Your task to perform on an android device: Search for the Nintendo Switch. Image 0: 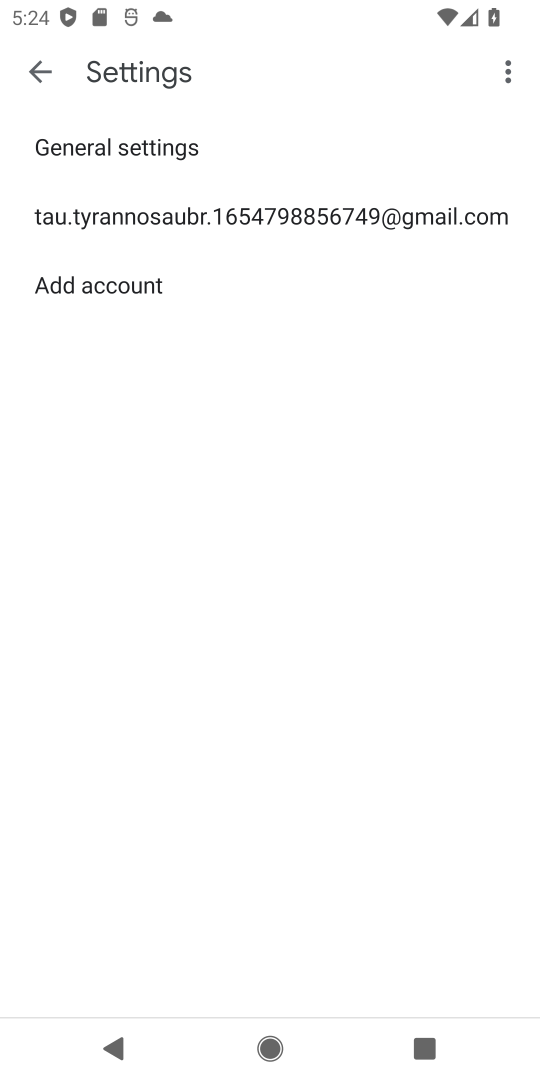
Step 0: press home button
Your task to perform on an android device: Search for the Nintendo Switch. Image 1: 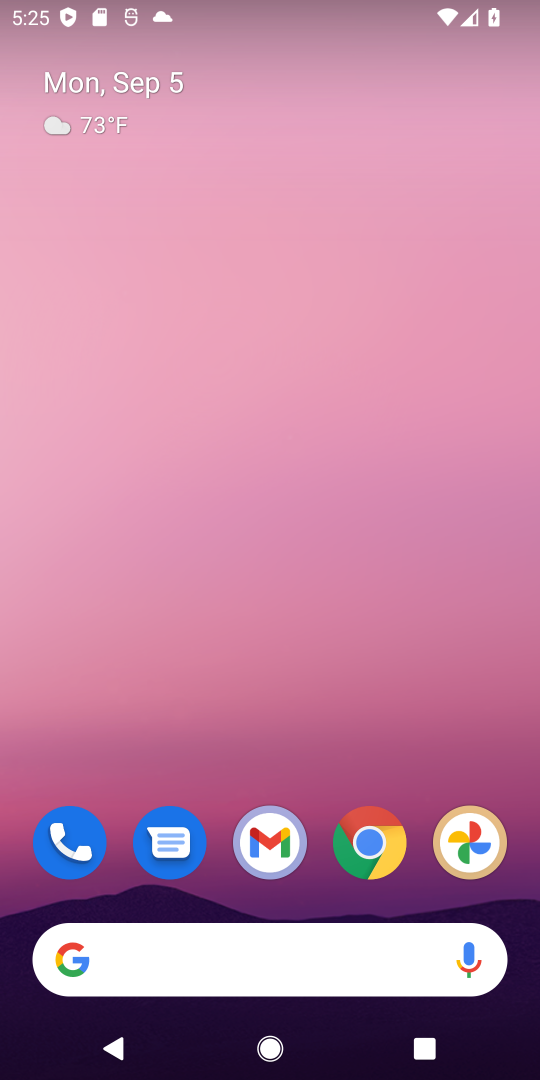
Step 1: click (369, 846)
Your task to perform on an android device: Search for the Nintendo Switch. Image 2: 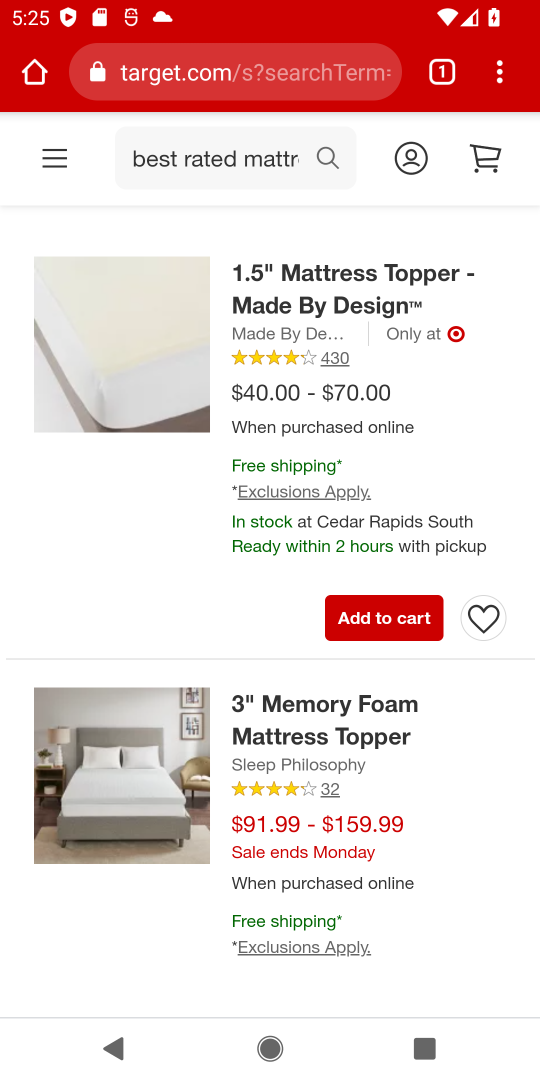
Step 2: click (297, 79)
Your task to perform on an android device: Search for the Nintendo Switch. Image 3: 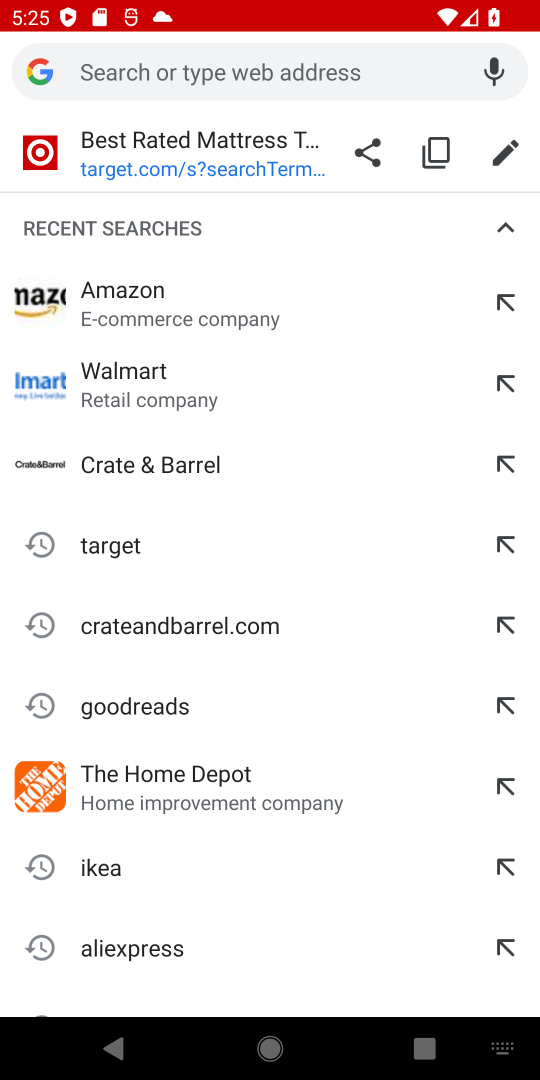
Step 3: type "Nintendo Switch"
Your task to perform on an android device: Search for the Nintendo Switch. Image 4: 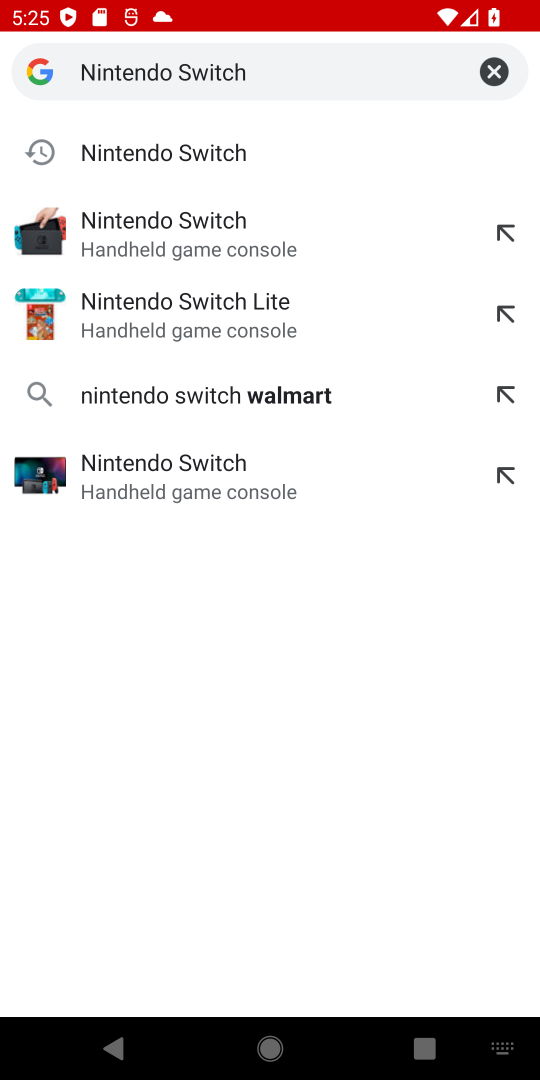
Step 4: click (204, 151)
Your task to perform on an android device: Search for the Nintendo Switch. Image 5: 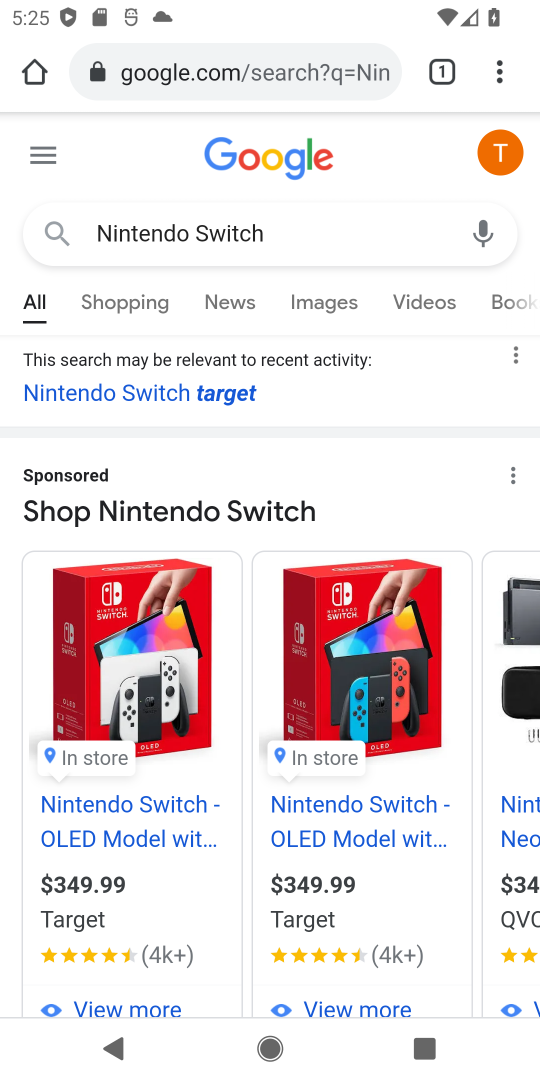
Step 5: task complete